Your task to perform on an android device: Open Google Chrome and open the bookmarks view Image 0: 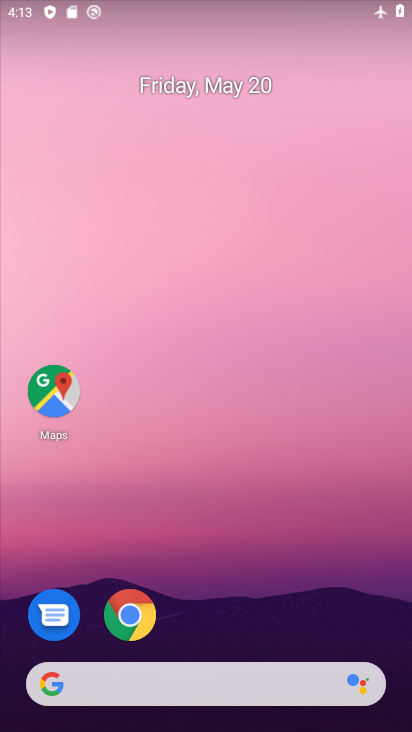
Step 0: drag from (275, 664) to (352, 16)
Your task to perform on an android device: Open Google Chrome and open the bookmarks view Image 1: 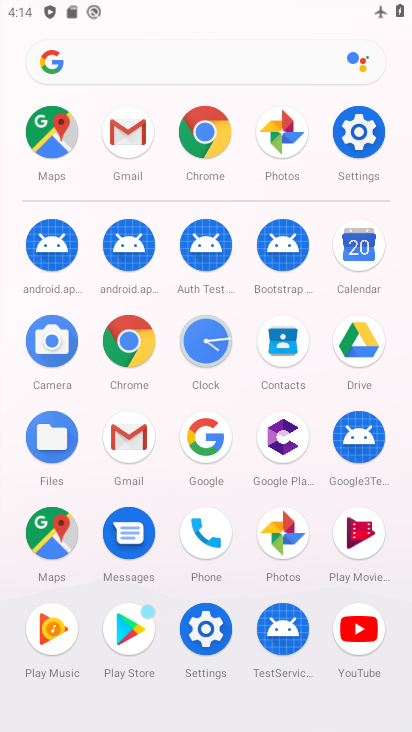
Step 1: click (150, 358)
Your task to perform on an android device: Open Google Chrome and open the bookmarks view Image 2: 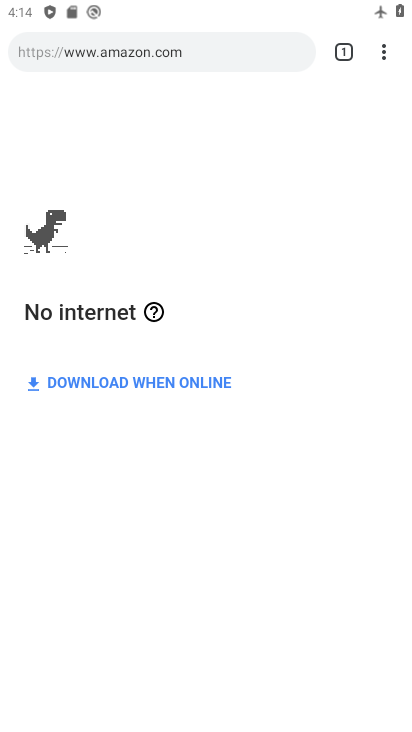
Step 2: click (381, 56)
Your task to perform on an android device: Open Google Chrome and open the bookmarks view Image 3: 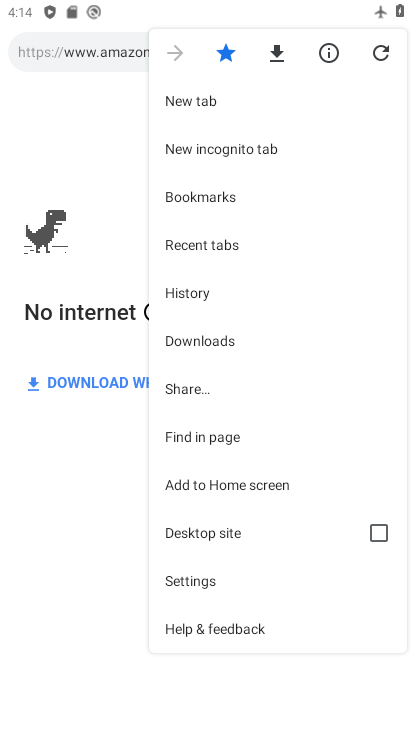
Step 3: click (210, 205)
Your task to perform on an android device: Open Google Chrome and open the bookmarks view Image 4: 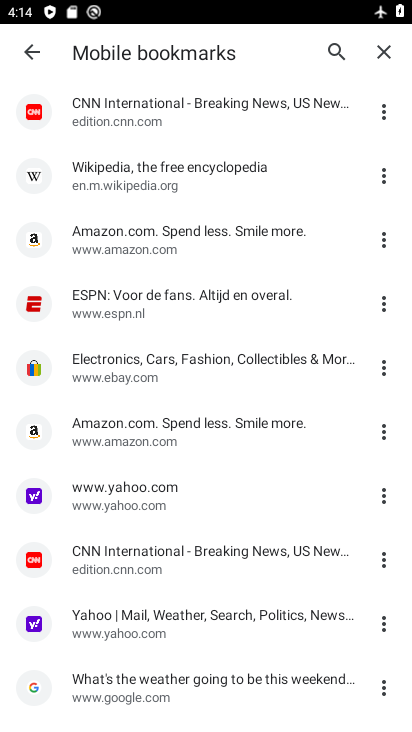
Step 4: task complete